Your task to perform on an android device: Open Android settings Image 0: 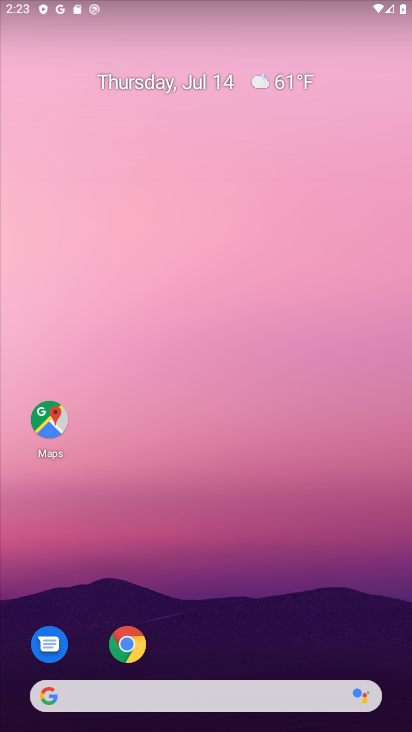
Step 0: drag from (298, 535) to (257, 142)
Your task to perform on an android device: Open Android settings Image 1: 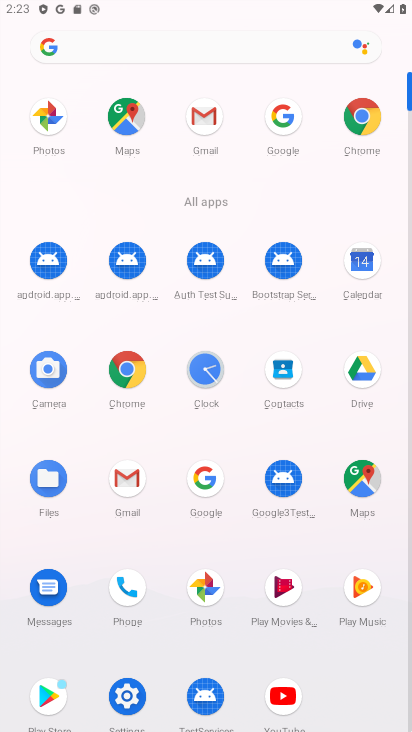
Step 1: click (131, 707)
Your task to perform on an android device: Open Android settings Image 2: 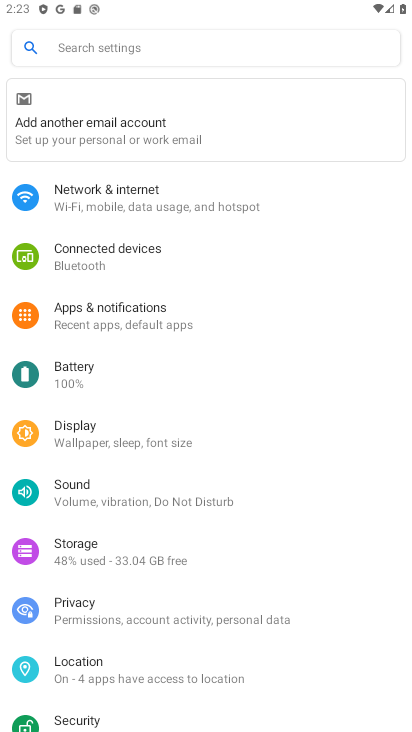
Step 2: task complete